Your task to perform on an android device: turn off wifi Image 0: 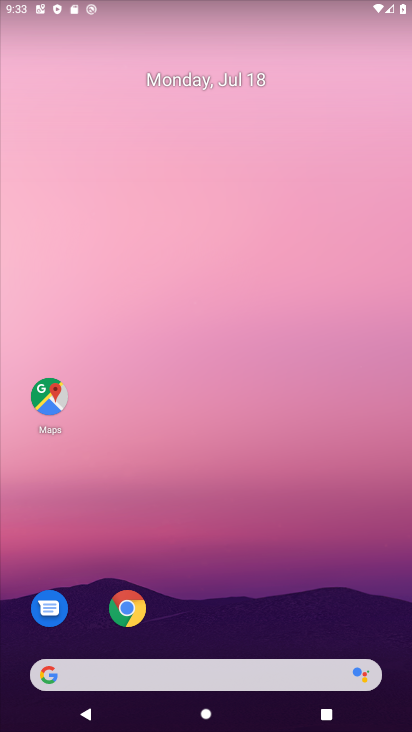
Step 0: drag from (227, 634) to (238, 33)
Your task to perform on an android device: turn off wifi Image 1: 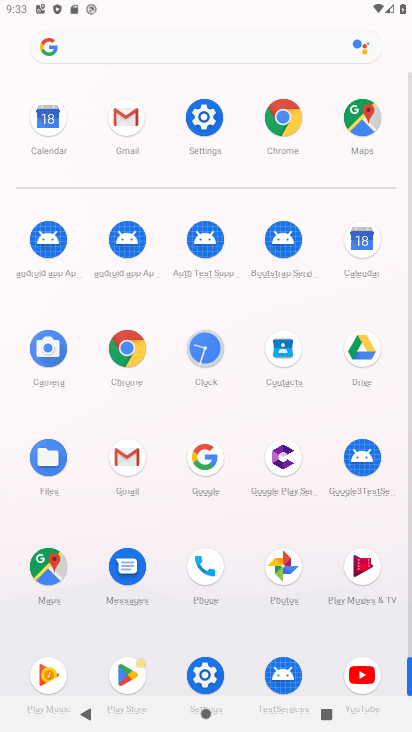
Step 1: click (195, 668)
Your task to perform on an android device: turn off wifi Image 2: 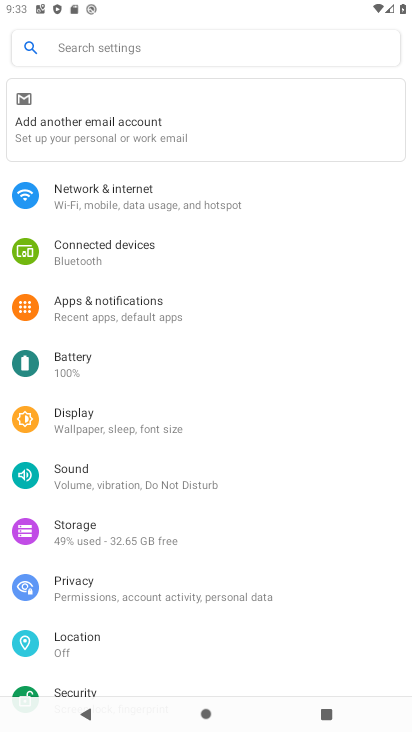
Step 2: click (157, 194)
Your task to perform on an android device: turn off wifi Image 3: 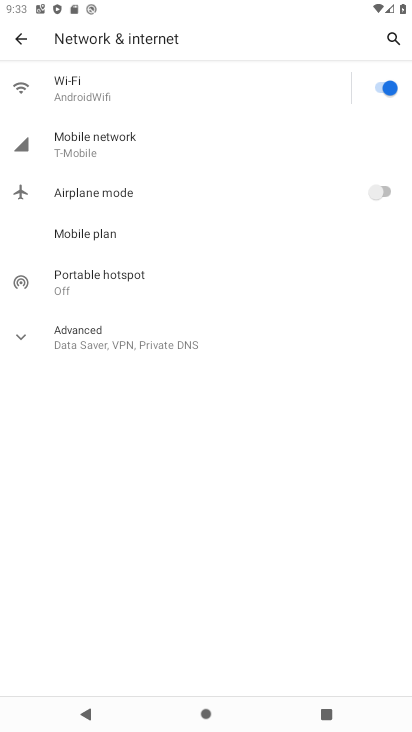
Step 3: click (368, 81)
Your task to perform on an android device: turn off wifi Image 4: 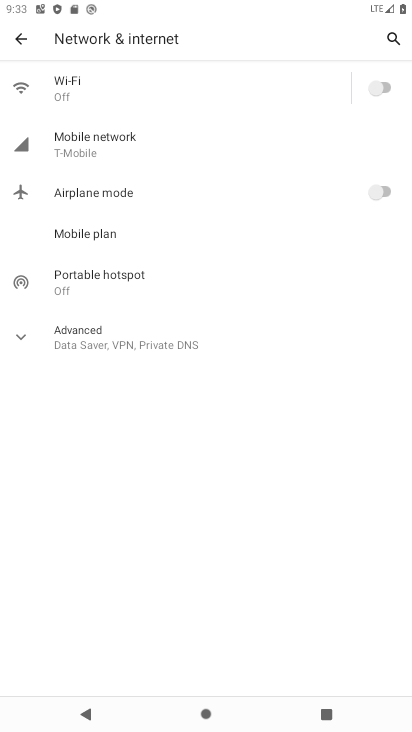
Step 4: task complete